Your task to perform on an android device: open a new tab in the chrome app Image 0: 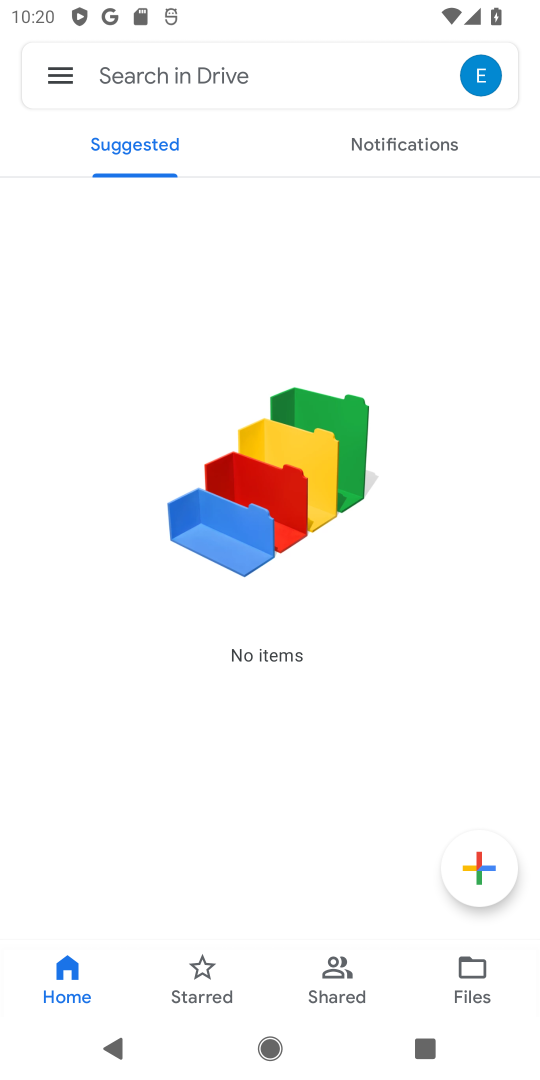
Step 0: press home button
Your task to perform on an android device: open a new tab in the chrome app Image 1: 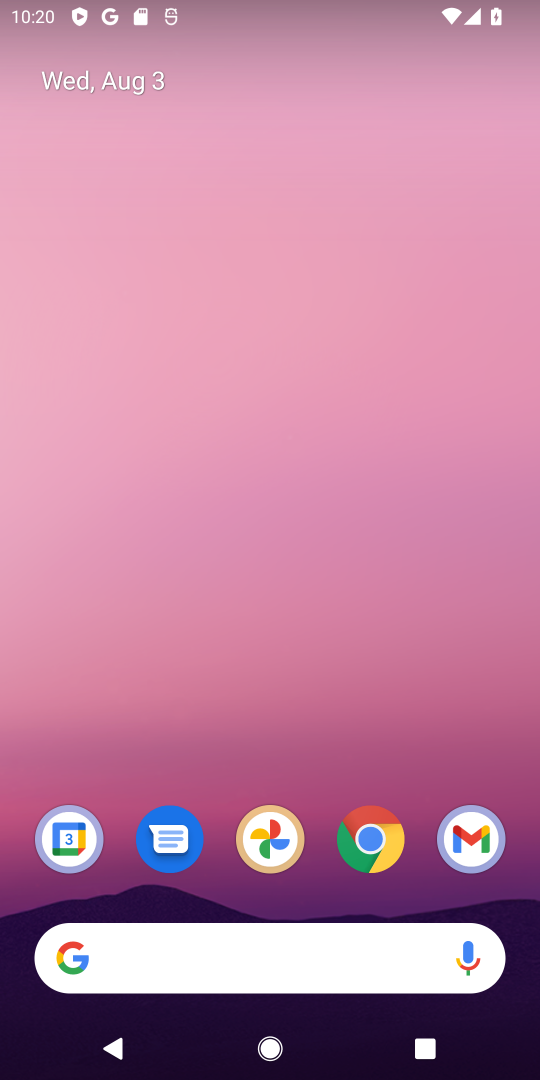
Step 1: click (368, 837)
Your task to perform on an android device: open a new tab in the chrome app Image 2: 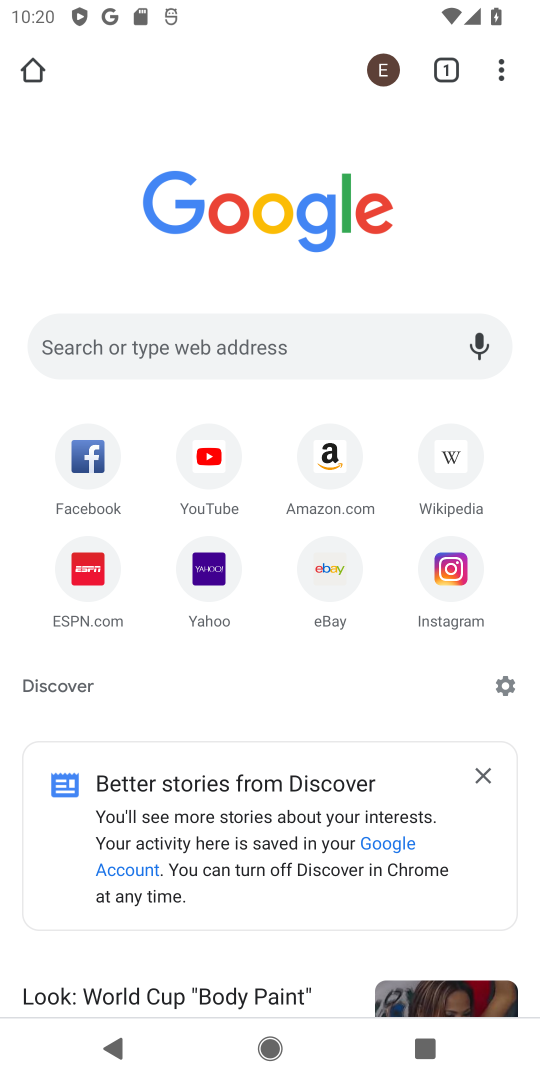
Step 2: click (501, 55)
Your task to perform on an android device: open a new tab in the chrome app Image 3: 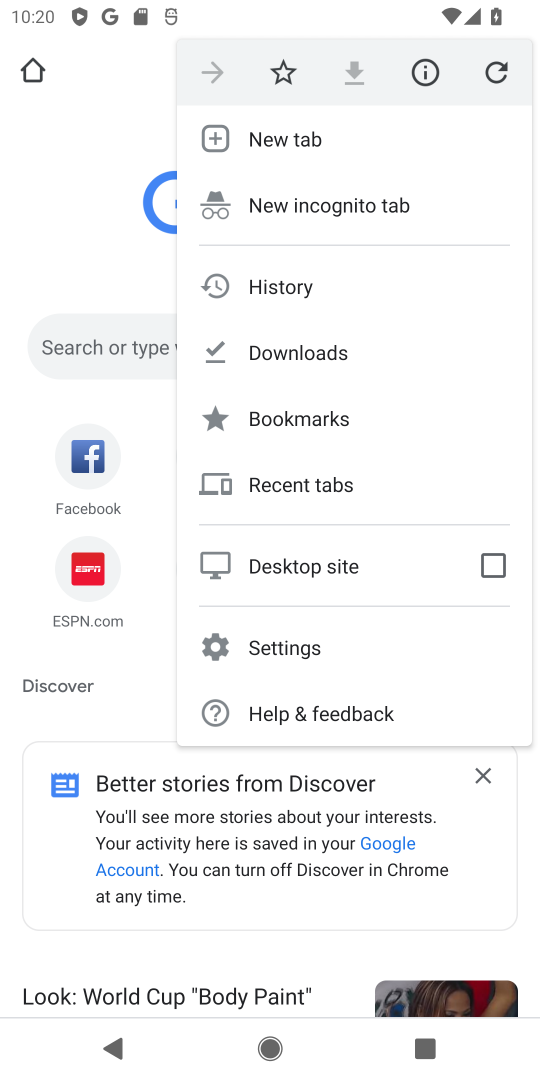
Step 3: click (303, 143)
Your task to perform on an android device: open a new tab in the chrome app Image 4: 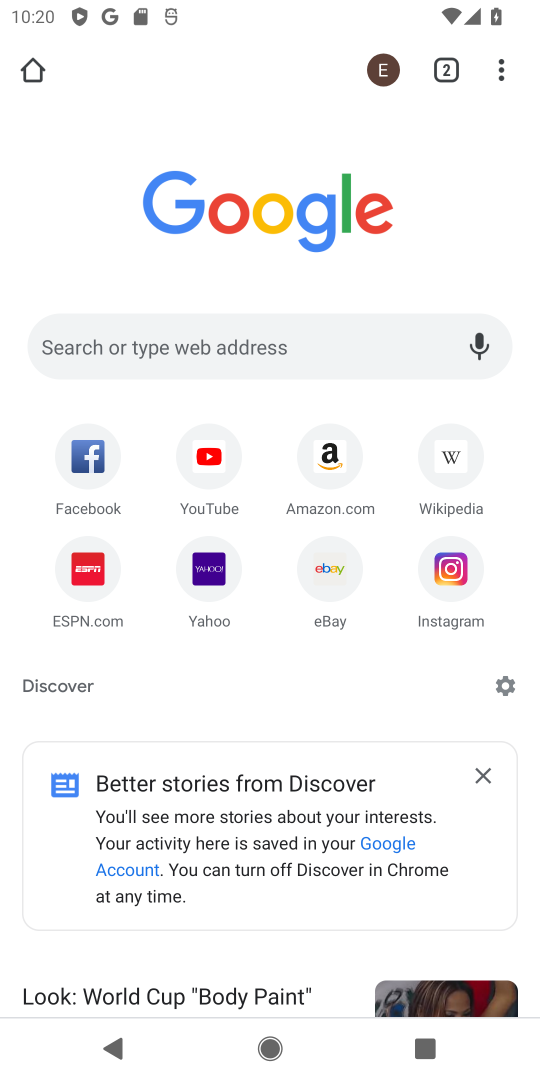
Step 4: task complete